Your task to perform on an android device: turn on sleep mode Image 0: 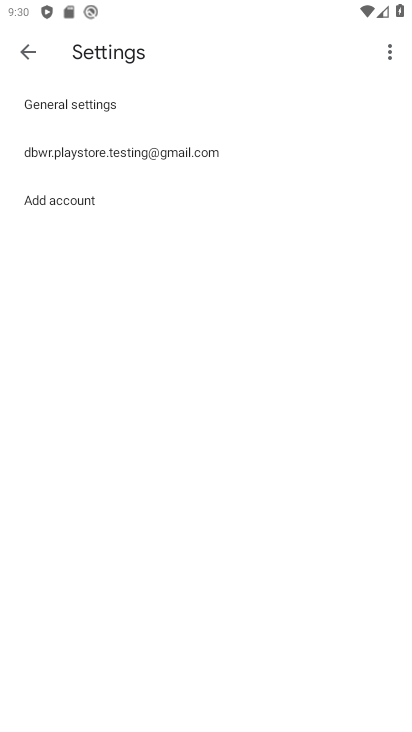
Step 0: press home button
Your task to perform on an android device: turn on sleep mode Image 1: 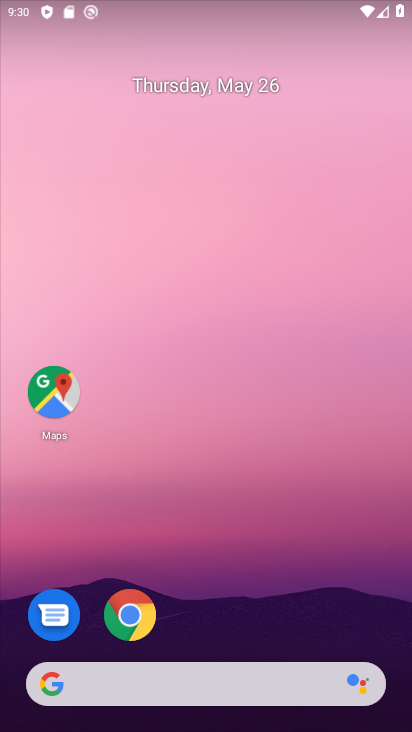
Step 1: drag from (140, 18) to (130, 711)
Your task to perform on an android device: turn on sleep mode Image 2: 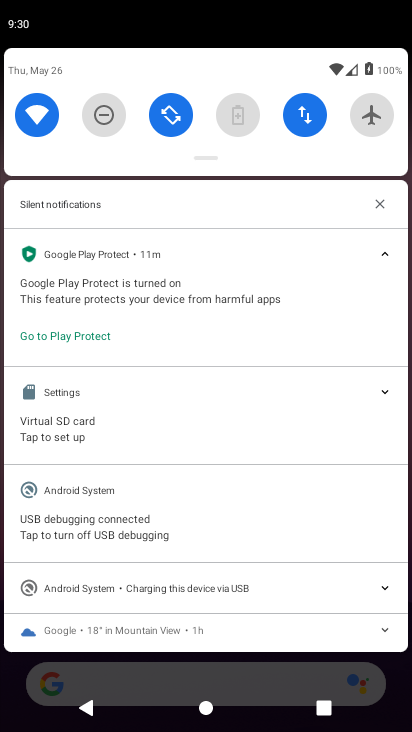
Step 2: drag from (204, 162) to (219, 498)
Your task to perform on an android device: turn on sleep mode Image 3: 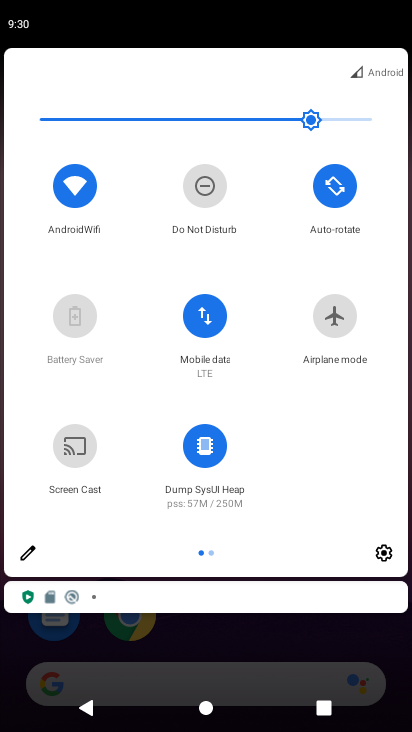
Step 3: click (24, 550)
Your task to perform on an android device: turn on sleep mode Image 4: 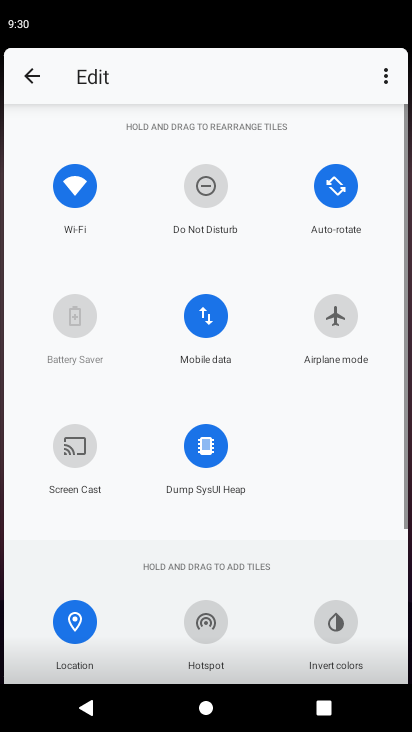
Step 4: drag from (320, 538) to (322, 258)
Your task to perform on an android device: turn on sleep mode Image 5: 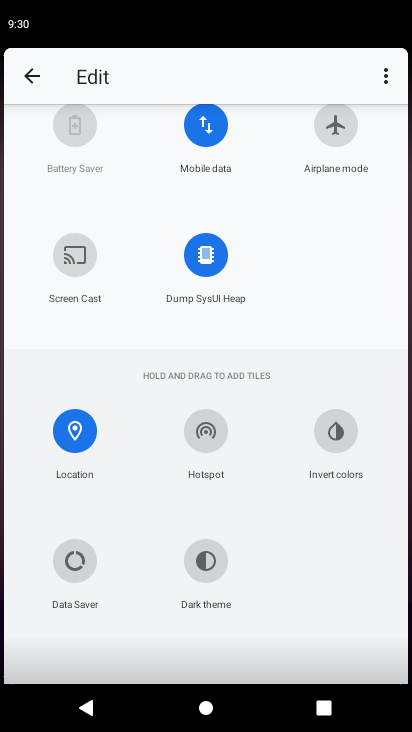
Step 5: press home button
Your task to perform on an android device: turn on sleep mode Image 6: 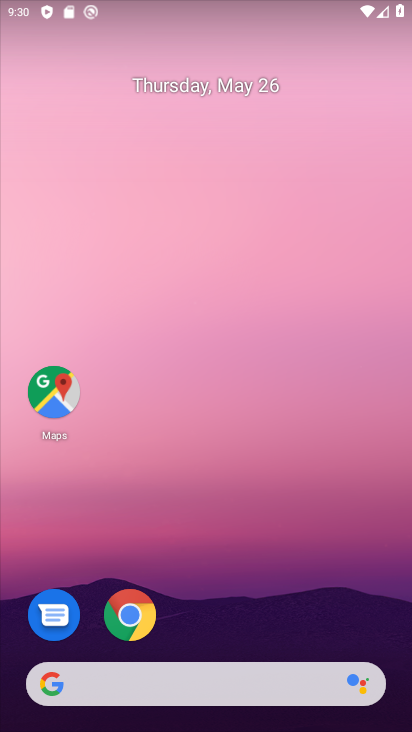
Step 6: drag from (145, 727) to (166, 70)
Your task to perform on an android device: turn on sleep mode Image 7: 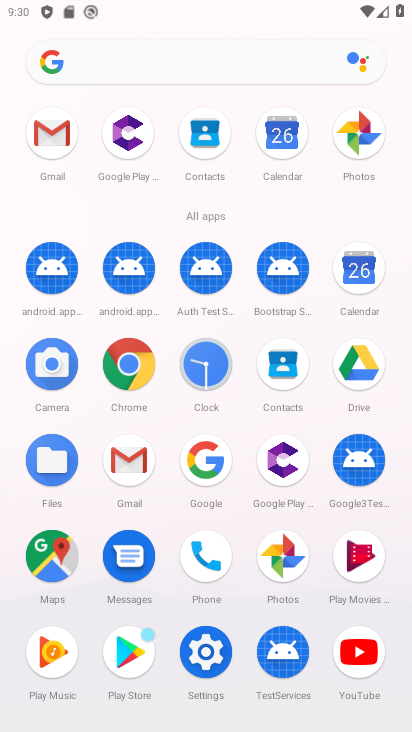
Step 7: click (195, 664)
Your task to perform on an android device: turn on sleep mode Image 8: 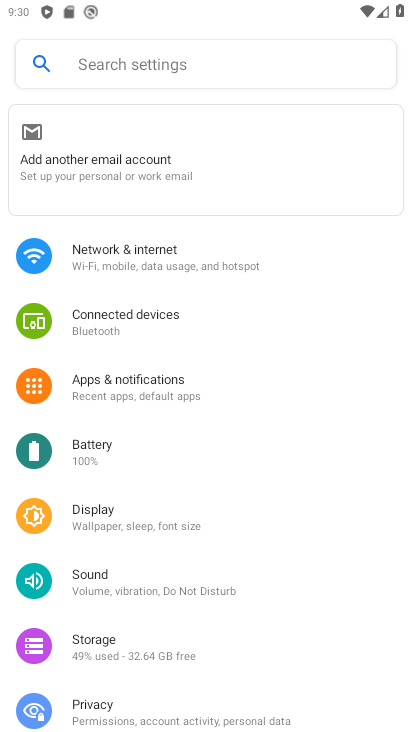
Step 8: task complete